Your task to perform on an android device: turn notification dots off Image 0: 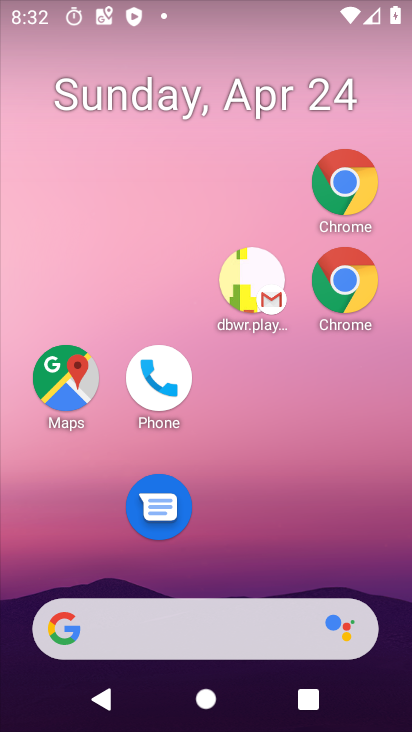
Step 0: drag from (265, 664) to (219, 4)
Your task to perform on an android device: turn notification dots off Image 1: 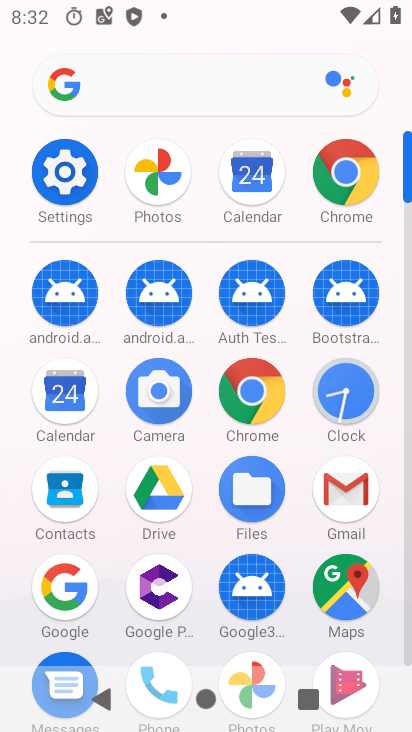
Step 1: click (66, 171)
Your task to perform on an android device: turn notification dots off Image 2: 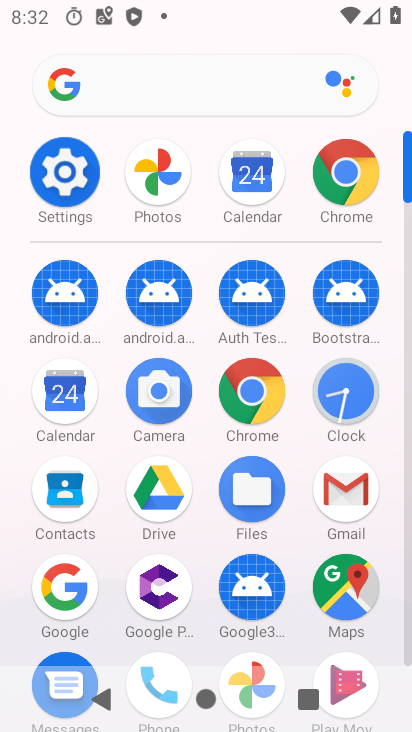
Step 2: click (67, 170)
Your task to perform on an android device: turn notification dots off Image 3: 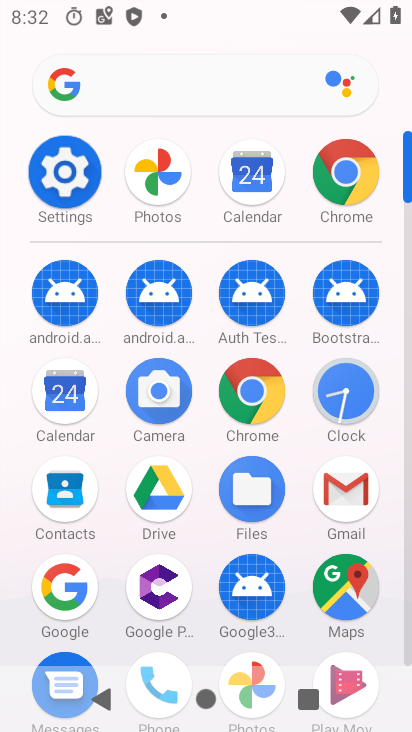
Step 3: click (68, 171)
Your task to perform on an android device: turn notification dots off Image 4: 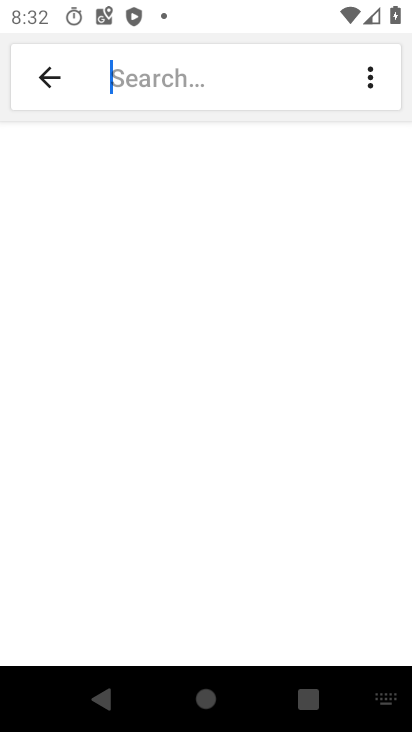
Step 4: click (25, 58)
Your task to perform on an android device: turn notification dots off Image 5: 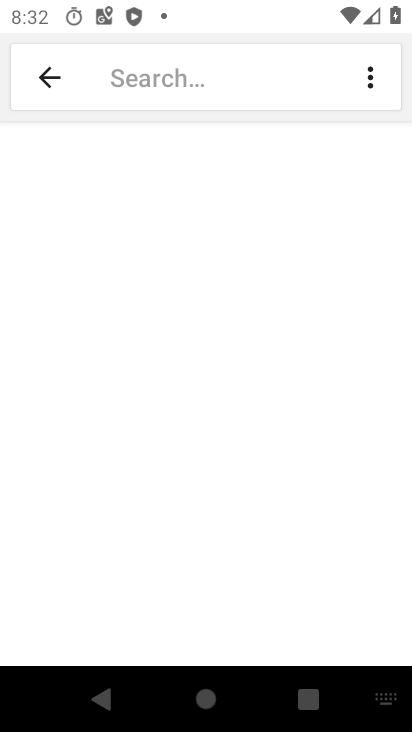
Step 5: click (36, 72)
Your task to perform on an android device: turn notification dots off Image 6: 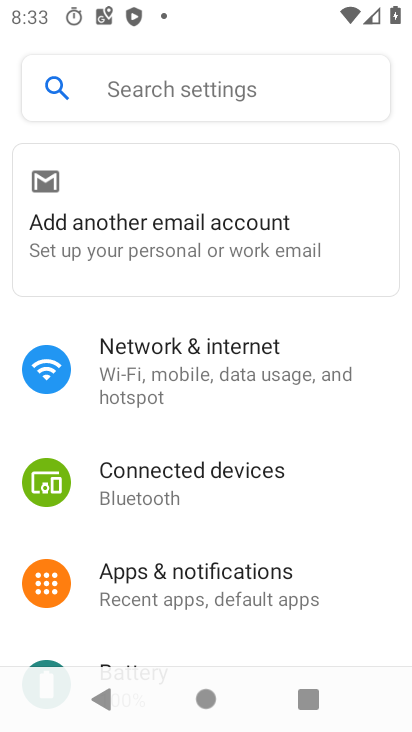
Step 6: click (212, 573)
Your task to perform on an android device: turn notification dots off Image 7: 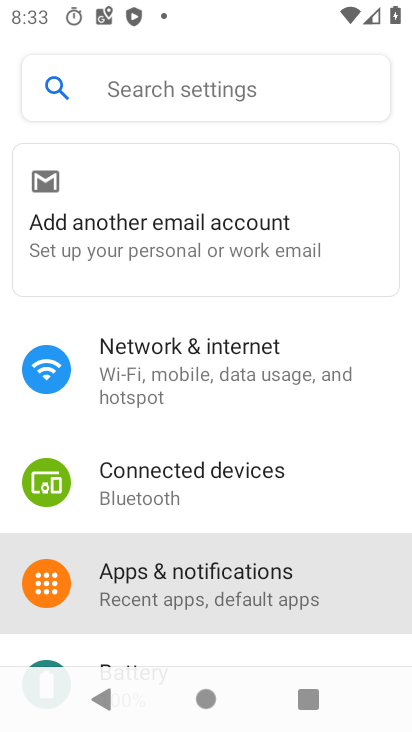
Step 7: click (212, 574)
Your task to perform on an android device: turn notification dots off Image 8: 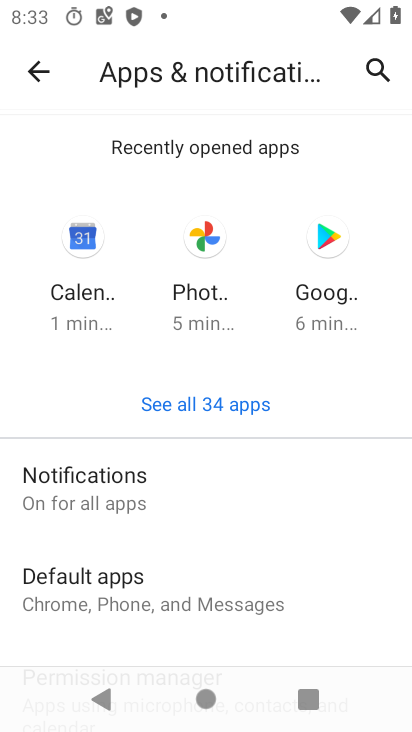
Step 8: click (82, 489)
Your task to perform on an android device: turn notification dots off Image 9: 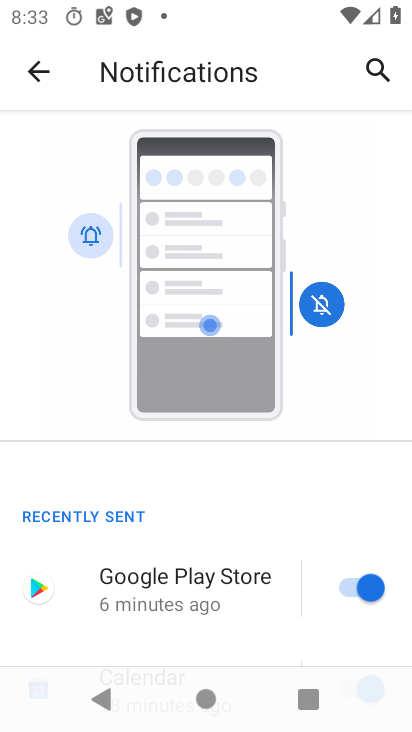
Step 9: click (88, 14)
Your task to perform on an android device: turn notification dots off Image 10: 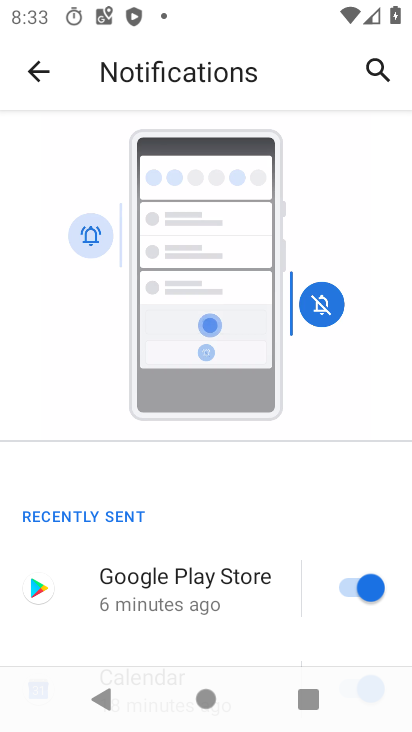
Step 10: click (174, 22)
Your task to perform on an android device: turn notification dots off Image 11: 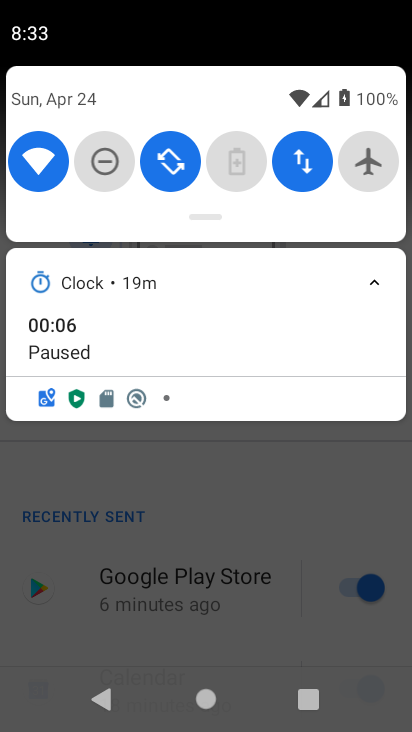
Step 11: drag from (204, 364) to (200, 12)
Your task to perform on an android device: turn notification dots off Image 12: 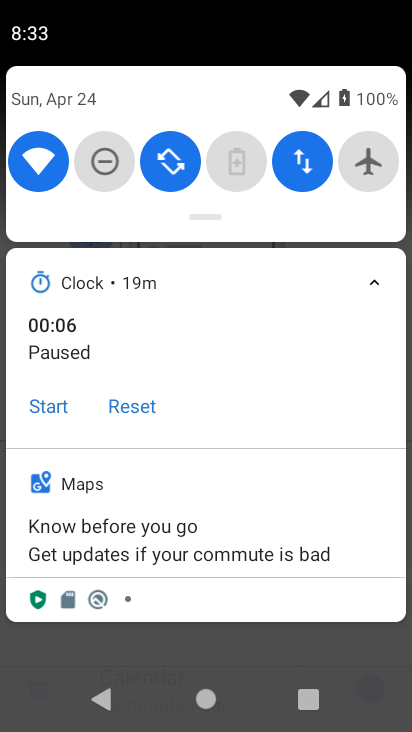
Step 12: drag from (165, 65) to (165, 17)
Your task to perform on an android device: turn notification dots off Image 13: 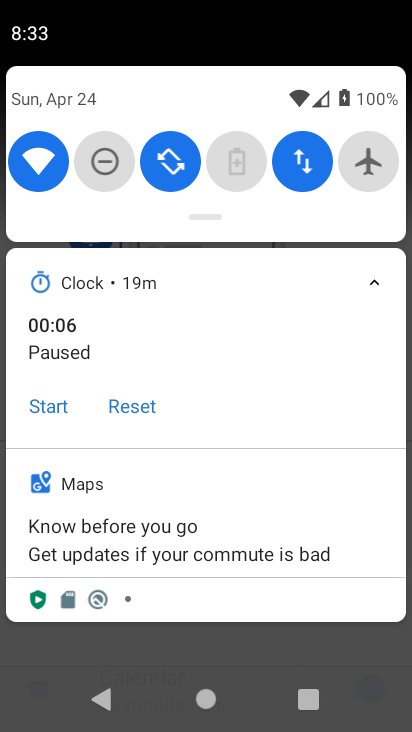
Step 13: drag from (120, 381) to (144, 187)
Your task to perform on an android device: turn notification dots off Image 14: 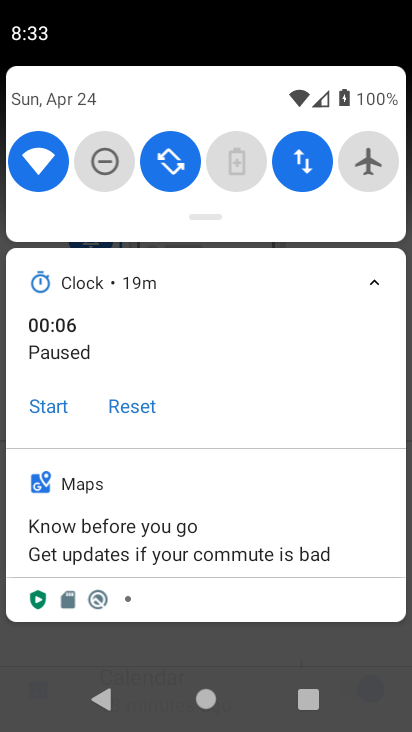
Step 14: drag from (305, 293) to (303, 173)
Your task to perform on an android device: turn notification dots off Image 15: 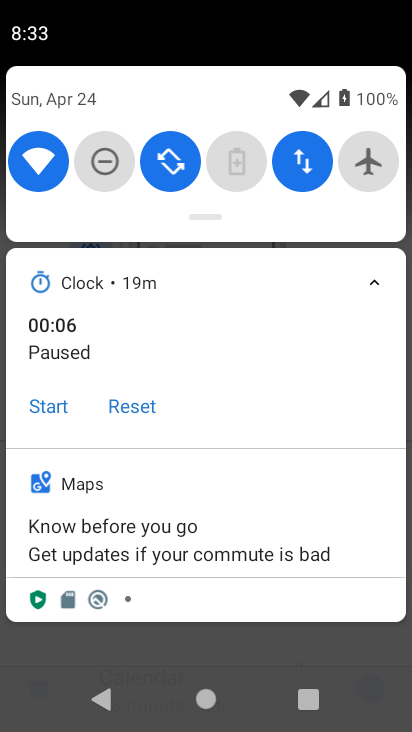
Step 15: drag from (280, 531) to (351, 151)
Your task to perform on an android device: turn notification dots off Image 16: 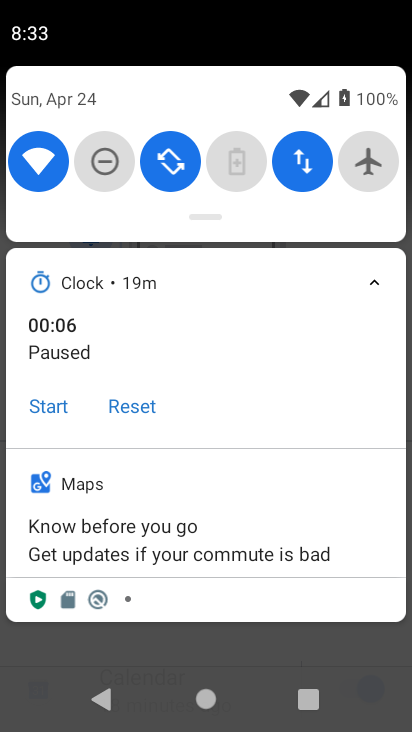
Step 16: click (377, 276)
Your task to perform on an android device: turn notification dots off Image 17: 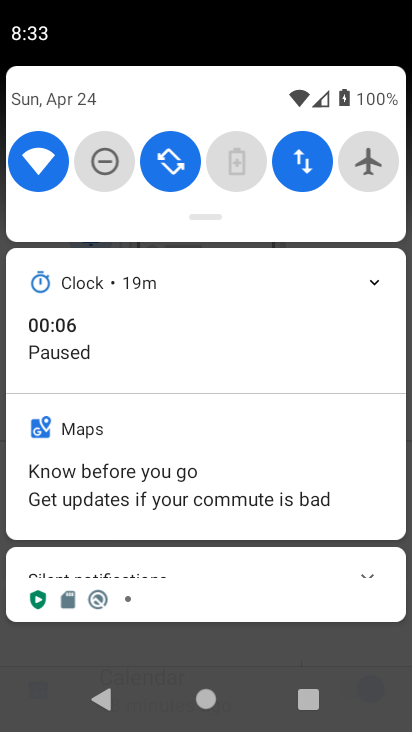
Step 17: drag from (219, 613) to (192, 88)
Your task to perform on an android device: turn notification dots off Image 18: 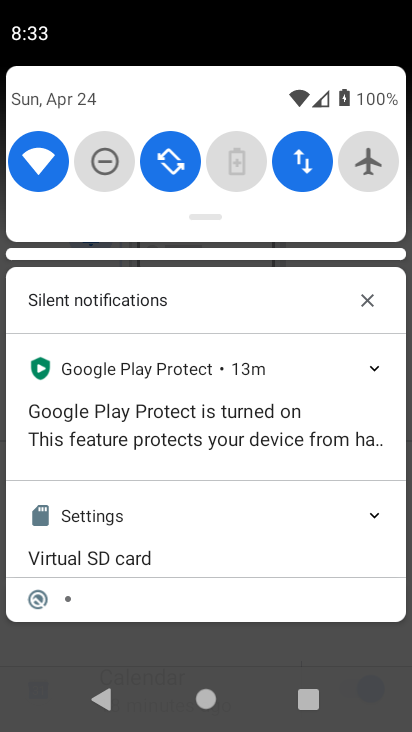
Step 18: drag from (231, 321) to (231, 93)
Your task to perform on an android device: turn notification dots off Image 19: 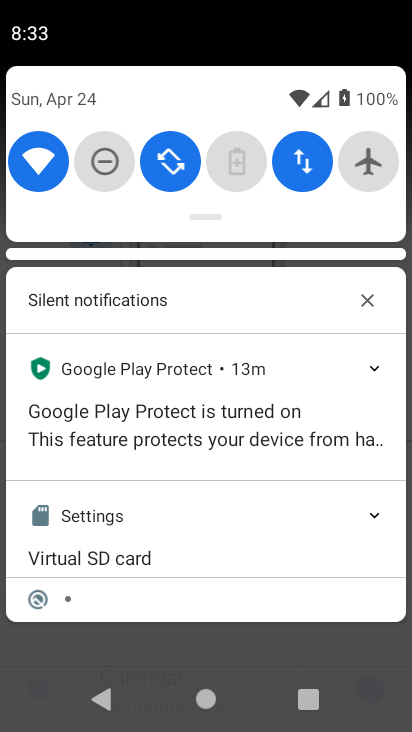
Step 19: drag from (199, 161) to (203, 52)
Your task to perform on an android device: turn notification dots off Image 20: 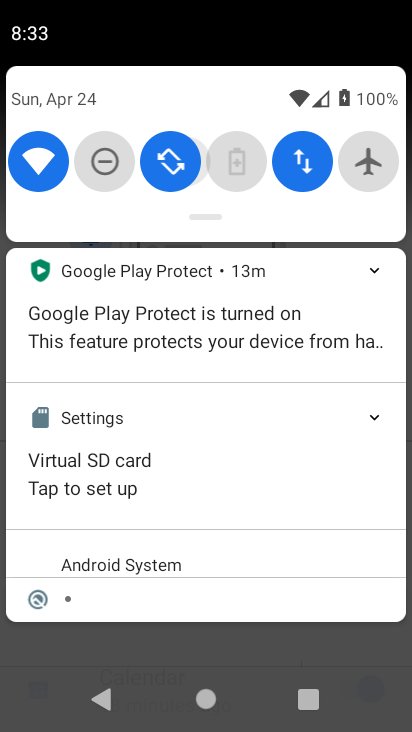
Step 20: drag from (293, 516) to (245, 38)
Your task to perform on an android device: turn notification dots off Image 21: 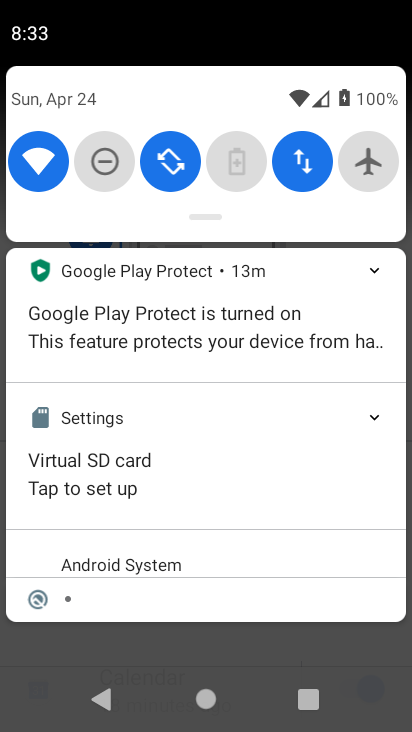
Step 21: drag from (180, 556) to (215, 100)
Your task to perform on an android device: turn notification dots off Image 22: 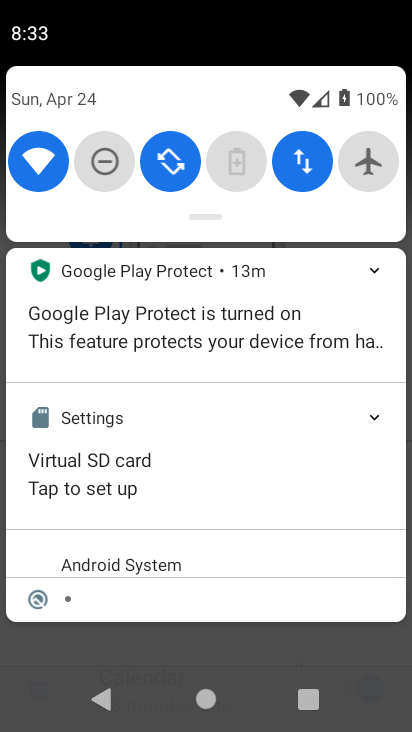
Step 22: drag from (239, 519) to (169, 3)
Your task to perform on an android device: turn notification dots off Image 23: 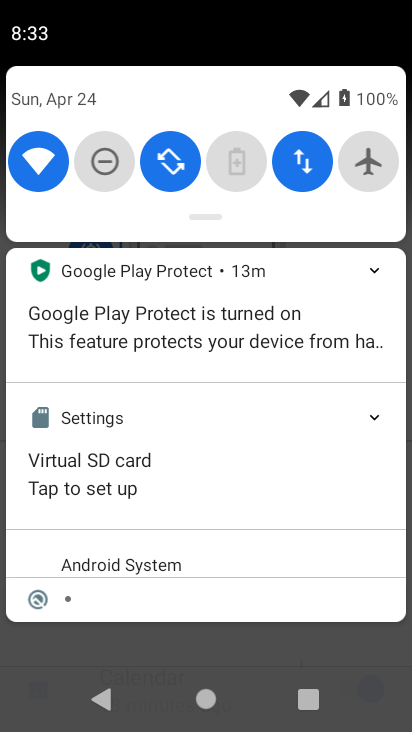
Step 23: drag from (240, 612) to (213, 43)
Your task to perform on an android device: turn notification dots off Image 24: 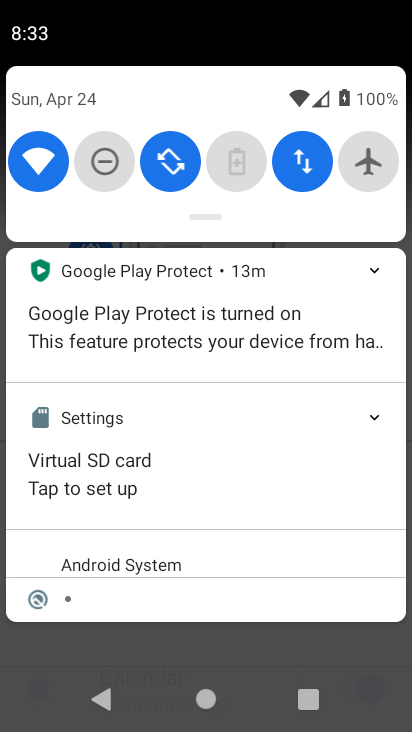
Step 24: drag from (223, 426) to (232, 10)
Your task to perform on an android device: turn notification dots off Image 25: 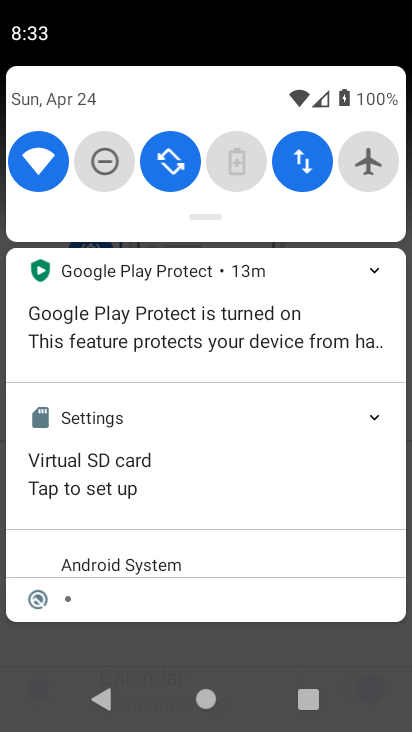
Step 25: drag from (234, 589) to (233, 147)
Your task to perform on an android device: turn notification dots off Image 26: 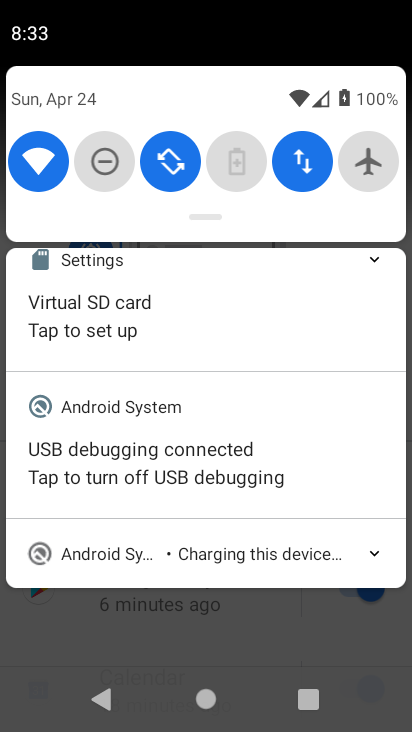
Step 26: click (247, 656)
Your task to perform on an android device: turn notification dots off Image 27: 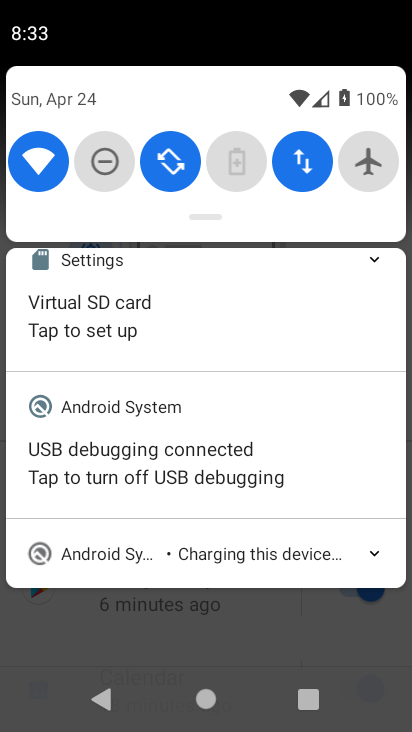
Step 27: click (247, 656)
Your task to perform on an android device: turn notification dots off Image 28: 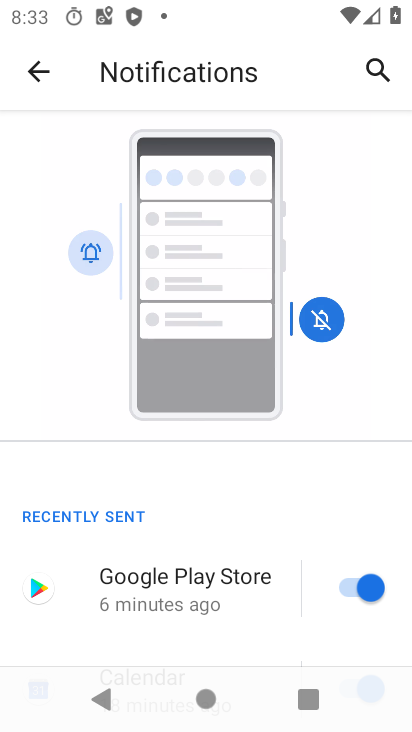
Step 28: click (251, 639)
Your task to perform on an android device: turn notification dots off Image 29: 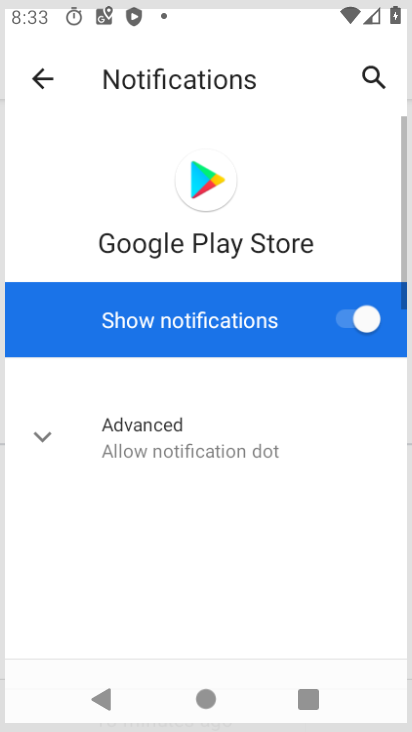
Step 29: drag from (174, 543) to (189, 84)
Your task to perform on an android device: turn notification dots off Image 30: 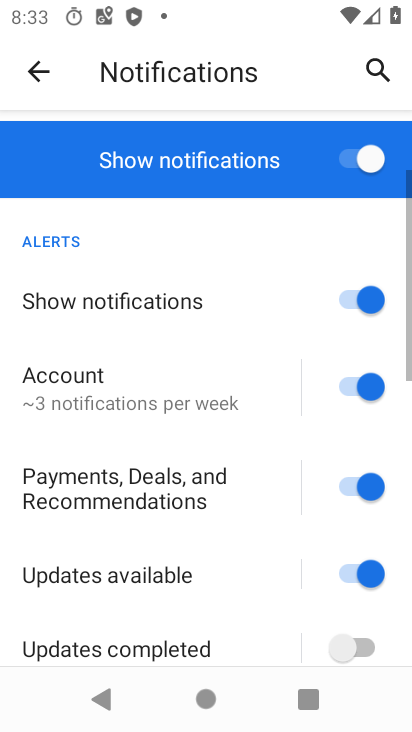
Step 30: click (186, 75)
Your task to perform on an android device: turn notification dots off Image 31: 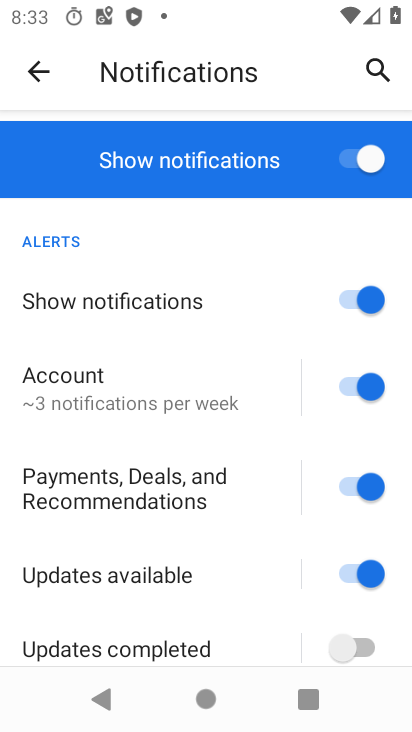
Step 31: drag from (175, 508) to (202, 32)
Your task to perform on an android device: turn notification dots off Image 32: 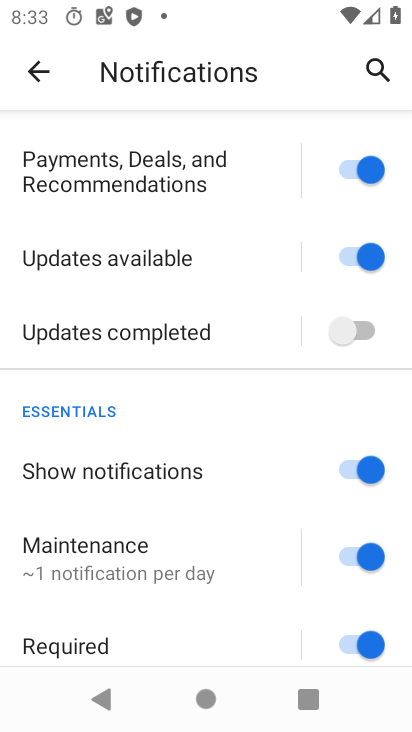
Step 32: click (30, 80)
Your task to perform on an android device: turn notification dots off Image 33: 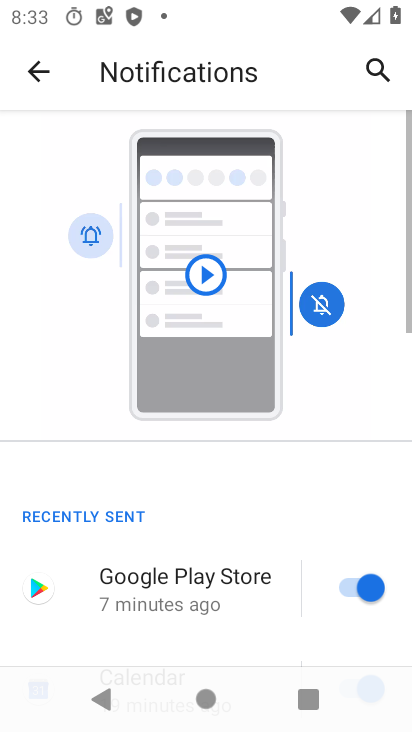
Step 33: drag from (177, 464) to (127, 8)
Your task to perform on an android device: turn notification dots off Image 34: 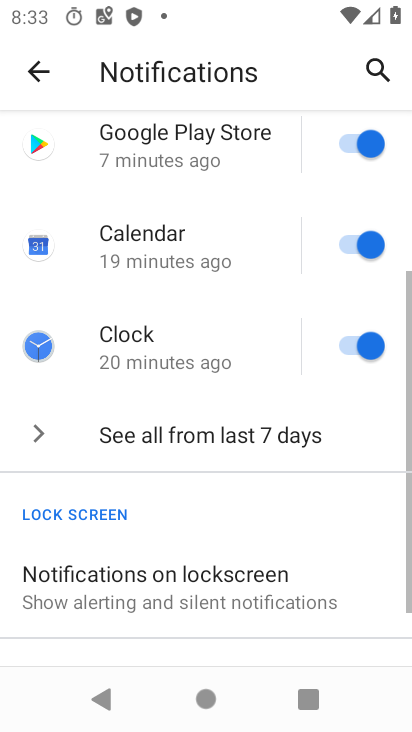
Step 34: drag from (136, 422) to (113, 112)
Your task to perform on an android device: turn notification dots off Image 35: 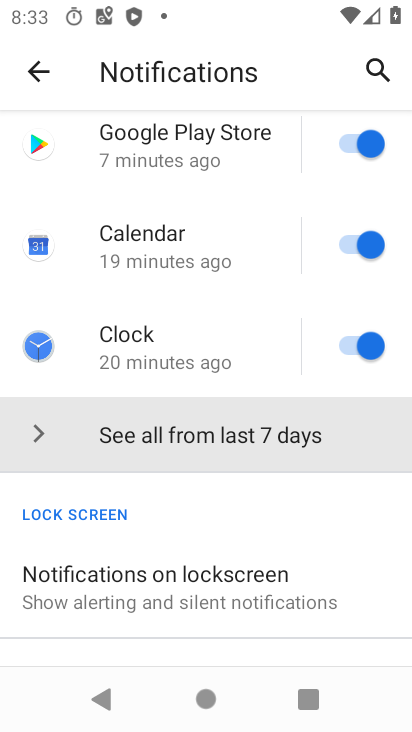
Step 35: drag from (184, 515) to (183, 19)
Your task to perform on an android device: turn notification dots off Image 36: 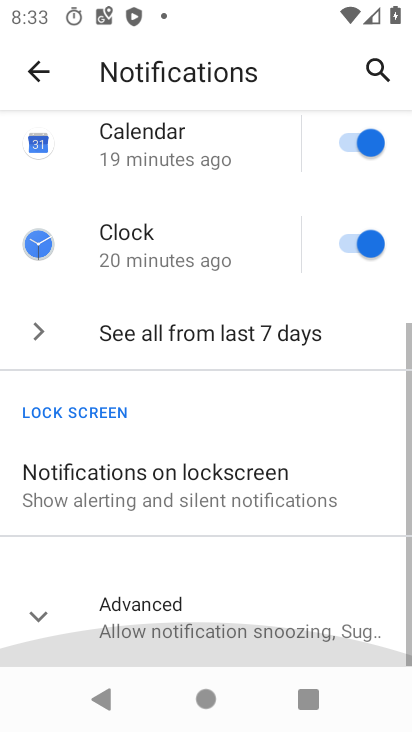
Step 36: drag from (201, 535) to (201, 62)
Your task to perform on an android device: turn notification dots off Image 37: 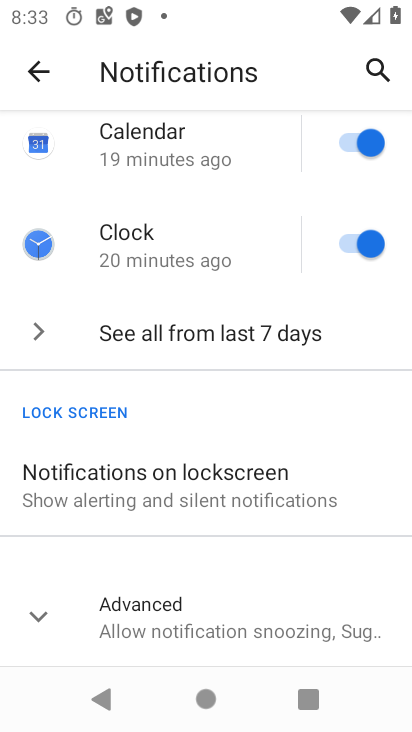
Step 37: click (178, 630)
Your task to perform on an android device: turn notification dots off Image 38: 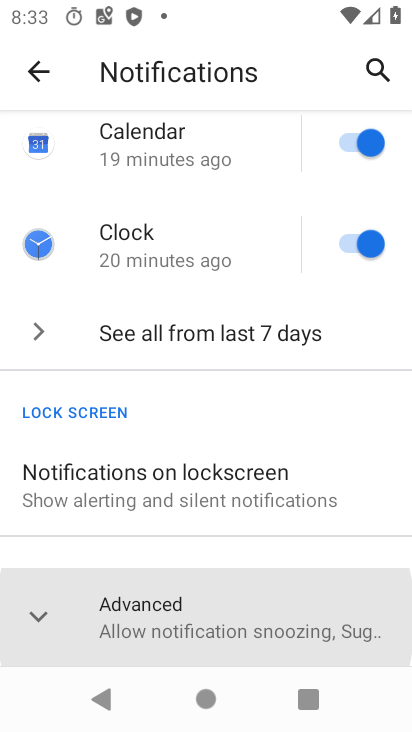
Step 38: click (173, 622)
Your task to perform on an android device: turn notification dots off Image 39: 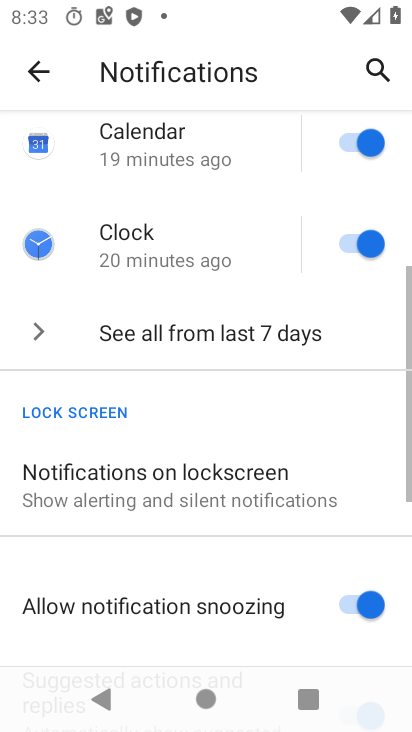
Step 39: drag from (200, 480) to (172, 58)
Your task to perform on an android device: turn notification dots off Image 40: 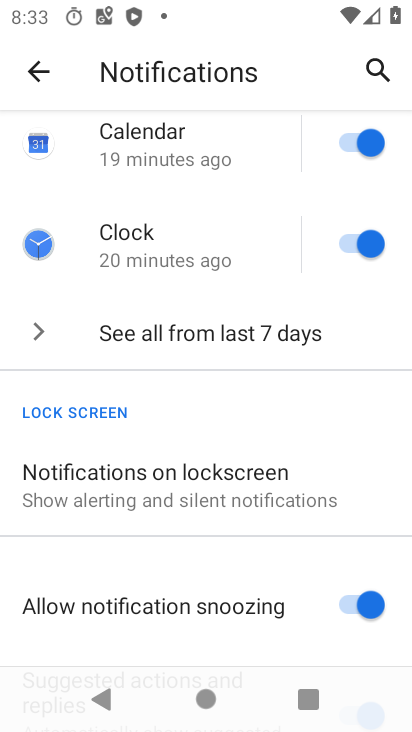
Step 40: drag from (197, 470) to (133, 18)
Your task to perform on an android device: turn notification dots off Image 41: 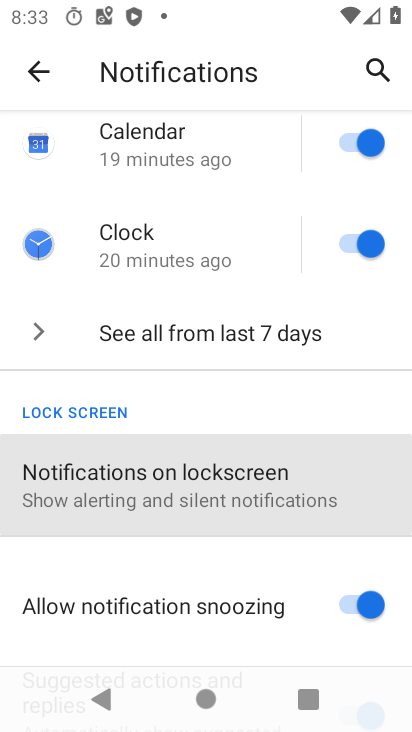
Step 41: drag from (163, 159) to (143, 7)
Your task to perform on an android device: turn notification dots off Image 42: 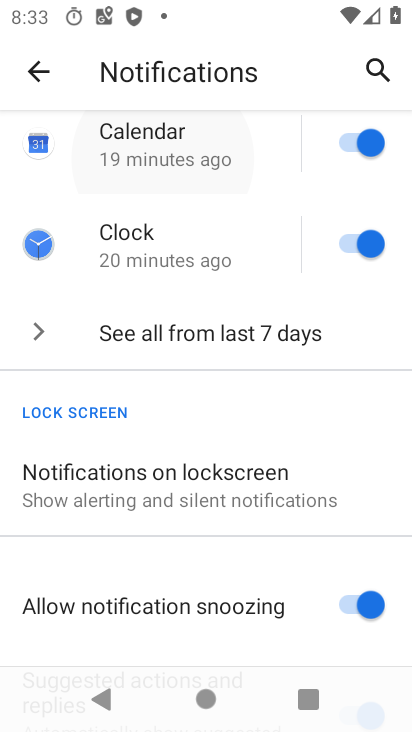
Step 42: drag from (268, 548) to (221, 3)
Your task to perform on an android device: turn notification dots off Image 43: 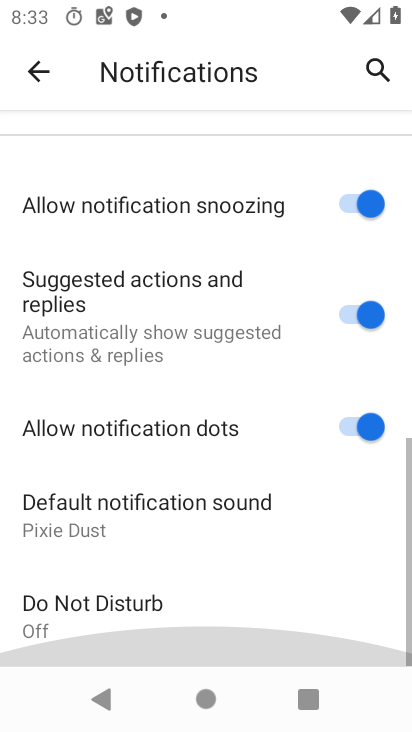
Step 43: drag from (211, 537) to (122, 13)
Your task to perform on an android device: turn notification dots off Image 44: 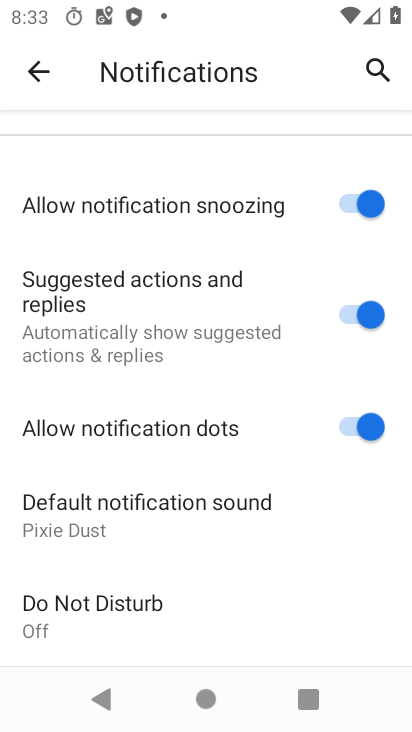
Step 44: click (371, 421)
Your task to perform on an android device: turn notification dots off Image 45: 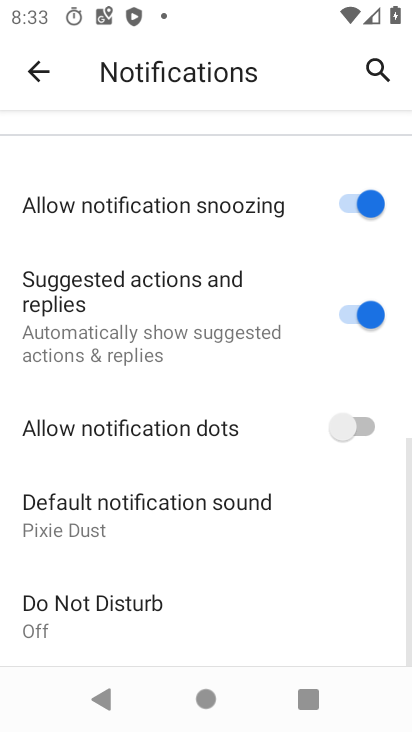
Step 45: task complete